Your task to perform on an android device: turn off location Image 0: 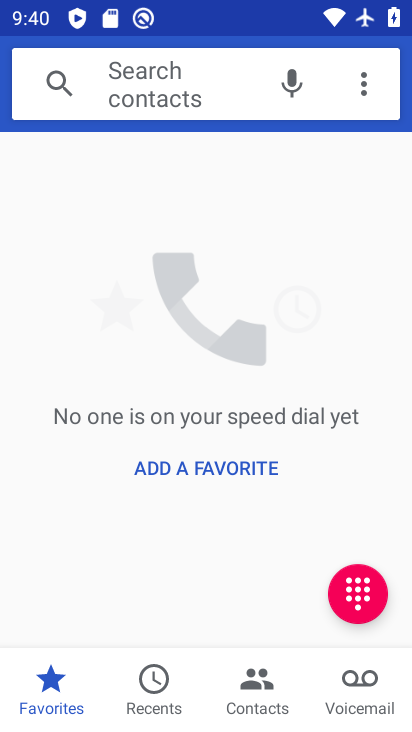
Step 0: drag from (331, 631) to (310, 517)
Your task to perform on an android device: turn off location Image 1: 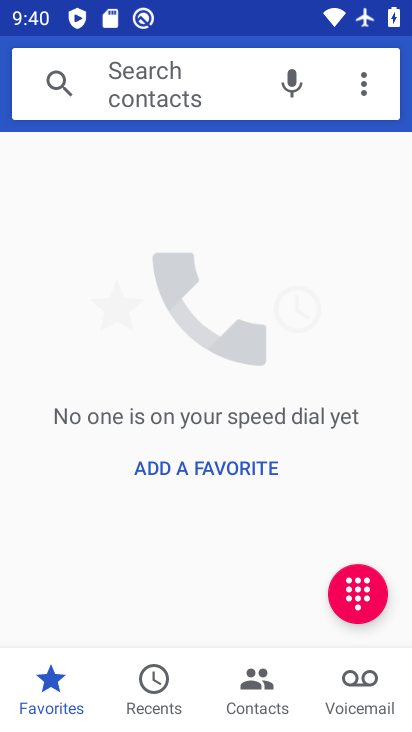
Step 1: press back button
Your task to perform on an android device: turn off location Image 2: 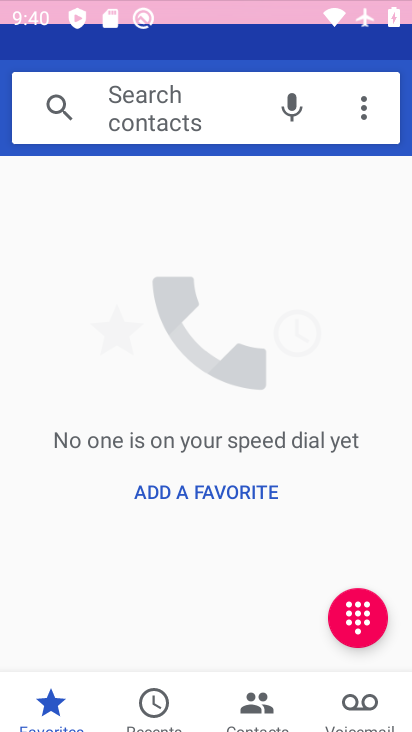
Step 2: press home button
Your task to perform on an android device: turn off location Image 3: 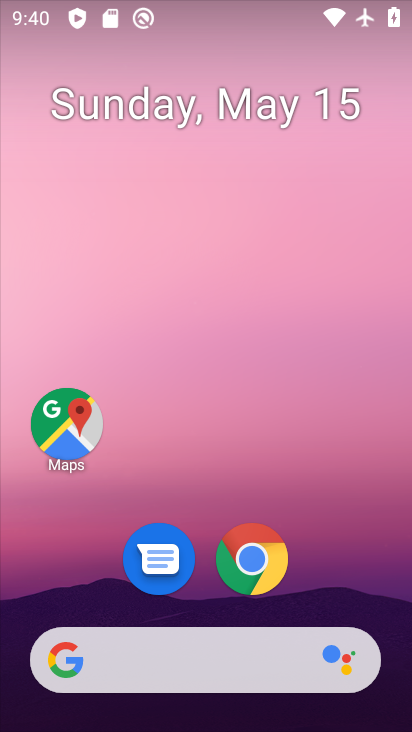
Step 3: click (150, 49)
Your task to perform on an android device: turn off location Image 4: 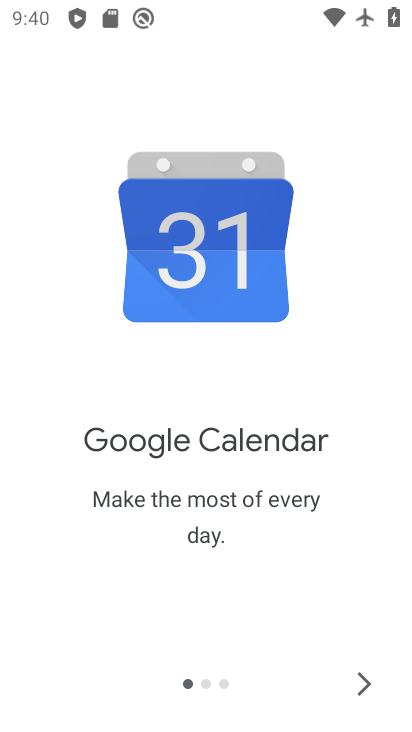
Step 4: click (233, 33)
Your task to perform on an android device: turn off location Image 5: 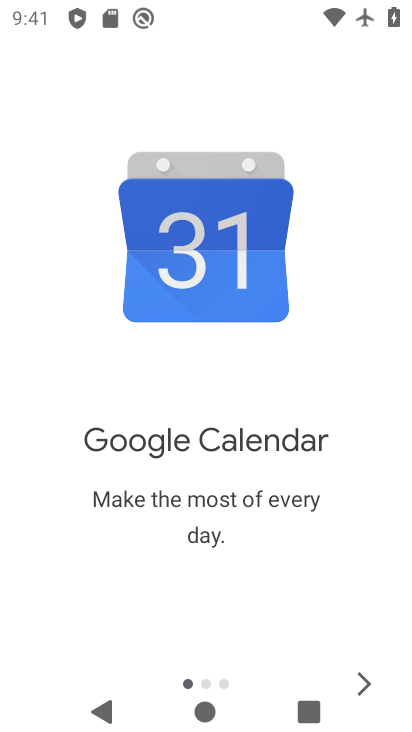
Step 5: drag from (341, 581) to (261, 298)
Your task to perform on an android device: turn off location Image 6: 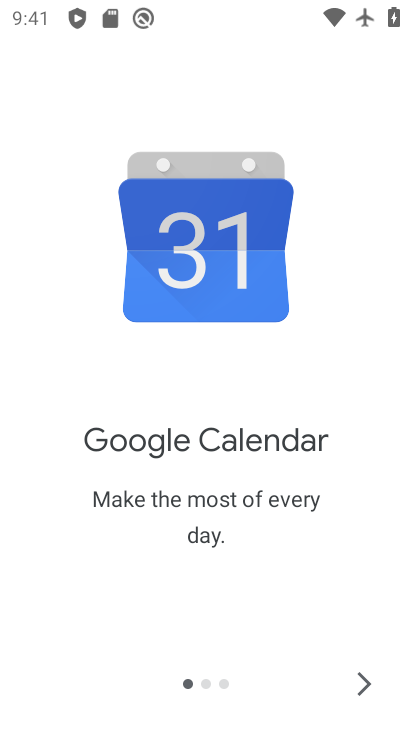
Step 6: press home button
Your task to perform on an android device: turn off location Image 7: 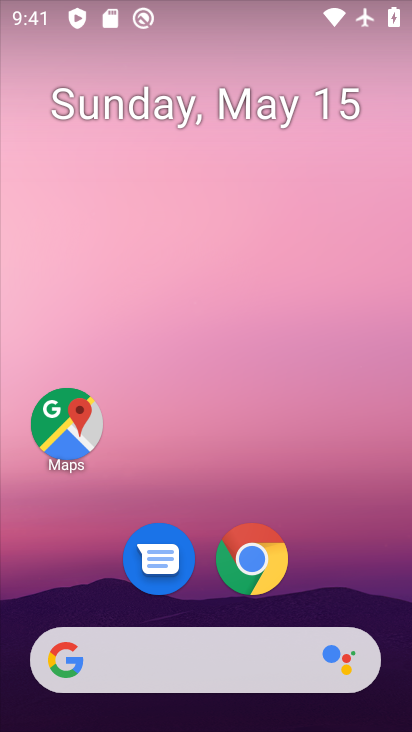
Step 7: drag from (357, 583) to (156, 8)
Your task to perform on an android device: turn off location Image 8: 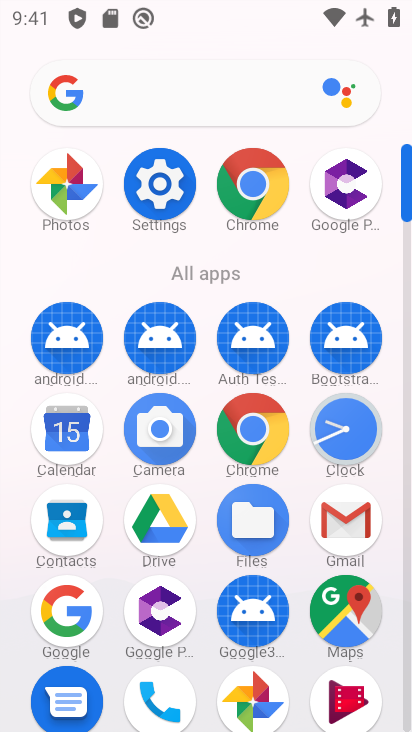
Step 8: click (166, 180)
Your task to perform on an android device: turn off location Image 9: 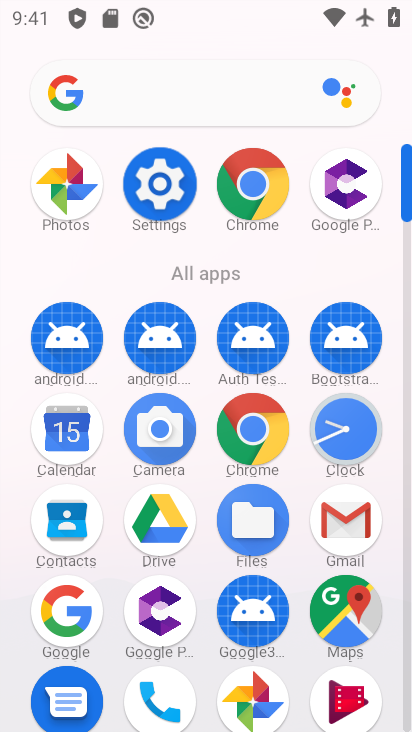
Step 9: click (165, 181)
Your task to perform on an android device: turn off location Image 10: 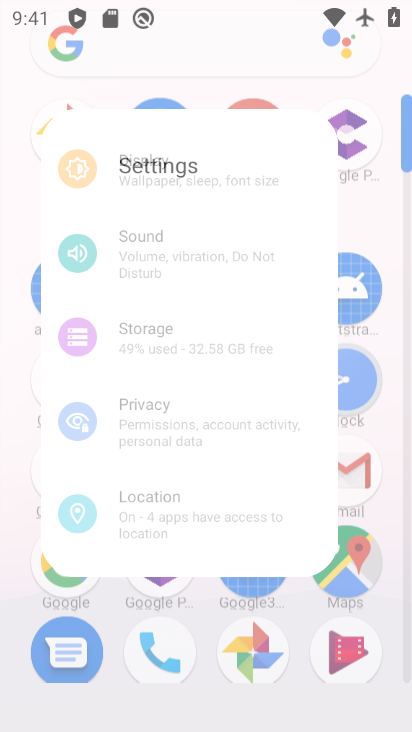
Step 10: click (165, 181)
Your task to perform on an android device: turn off location Image 11: 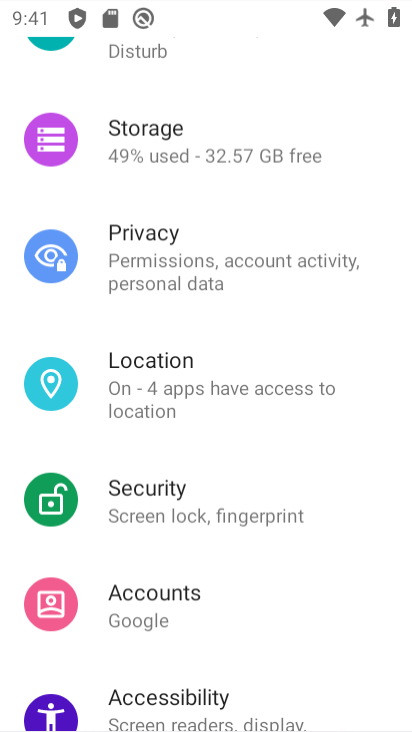
Step 11: click (162, 186)
Your task to perform on an android device: turn off location Image 12: 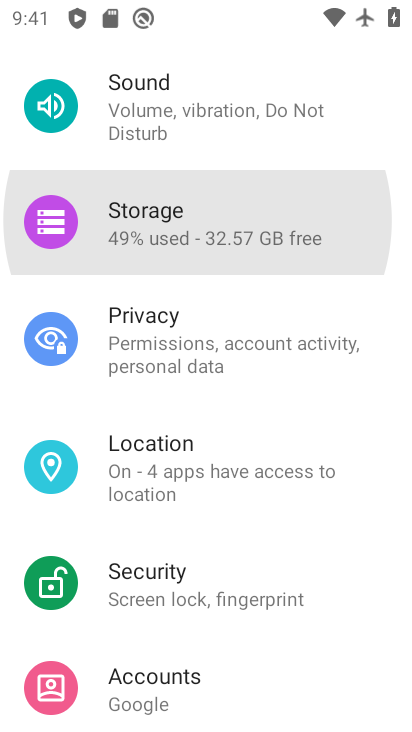
Step 12: click (162, 186)
Your task to perform on an android device: turn off location Image 13: 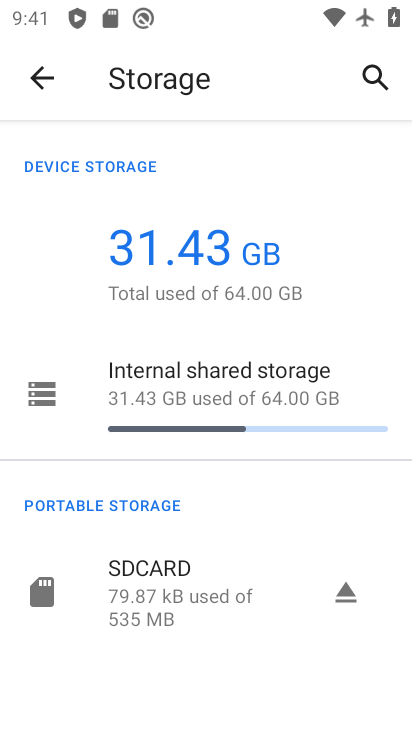
Step 13: click (32, 64)
Your task to perform on an android device: turn off location Image 14: 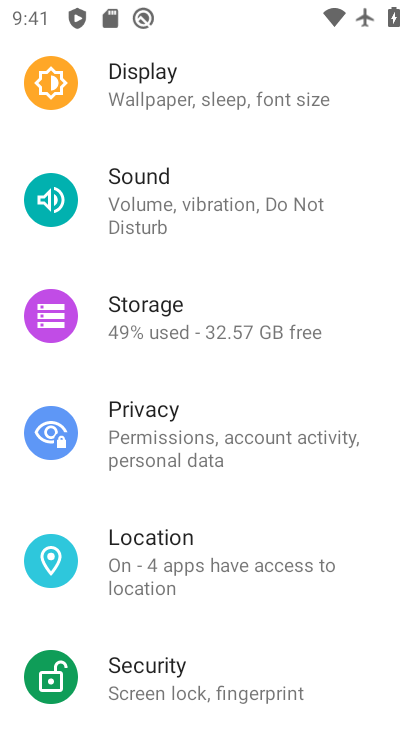
Step 14: click (168, 566)
Your task to perform on an android device: turn off location Image 15: 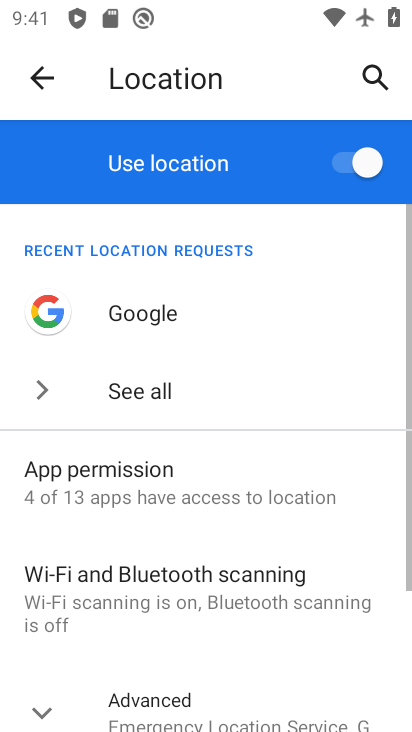
Step 15: click (364, 167)
Your task to perform on an android device: turn off location Image 16: 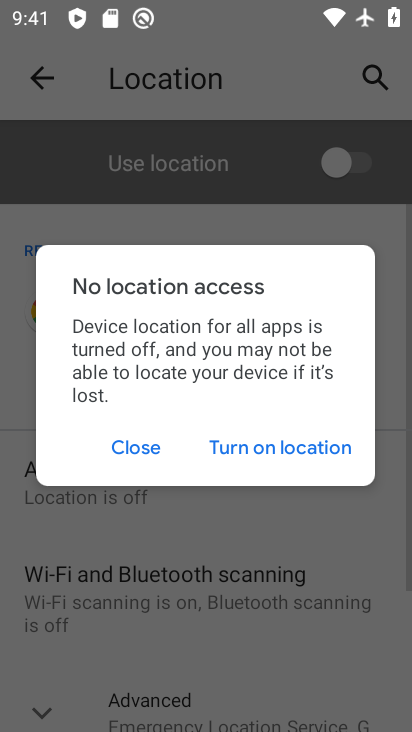
Step 16: task complete